Your task to perform on an android device: change your default location settings in chrome Image 0: 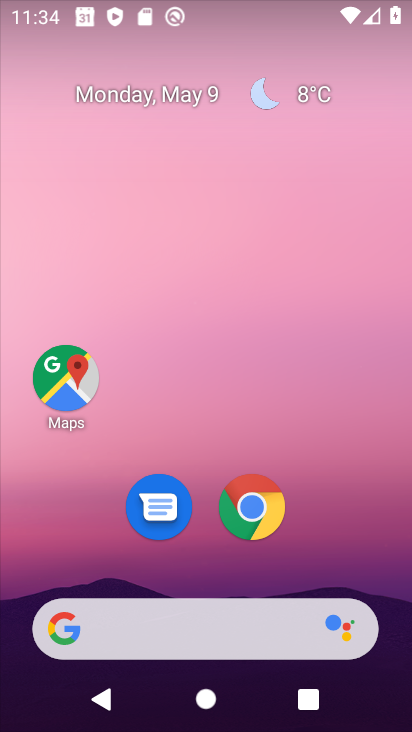
Step 0: click (245, 509)
Your task to perform on an android device: change your default location settings in chrome Image 1: 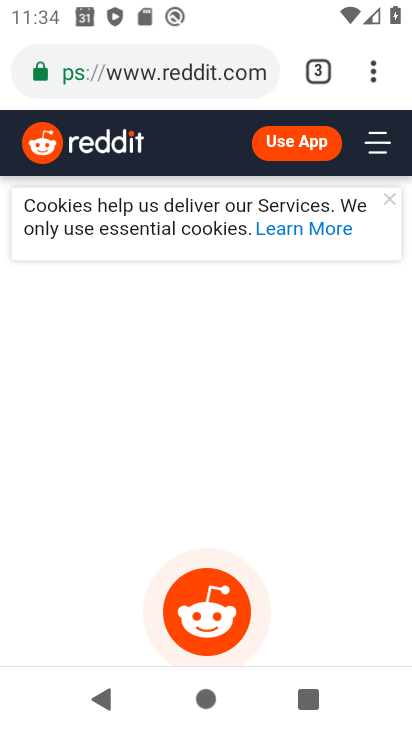
Step 1: click (379, 72)
Your task to perform on an android device: change your default location settings in chrome Image 2: 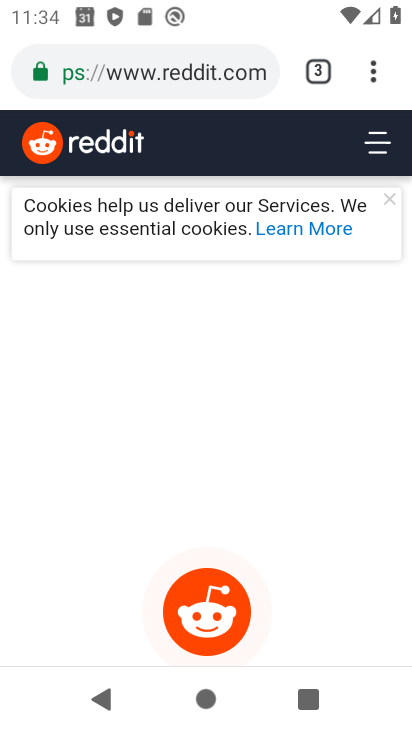
Step 2: click (373, 83)
Your task to perform on an android device: change your default location settings in chrome Image 3: 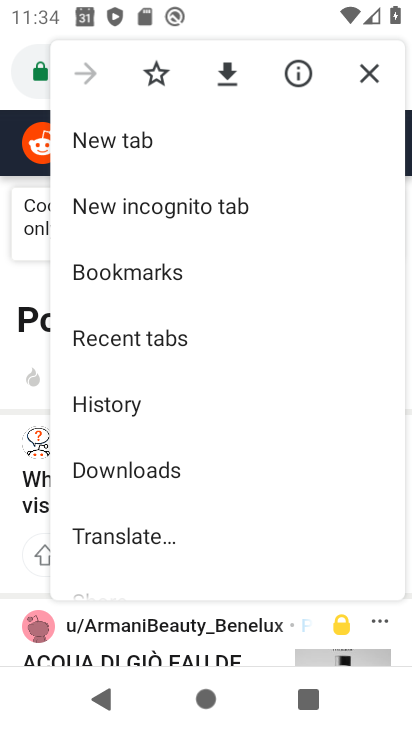
Step 3: drag from (190, 518) to (194, 256)
Your task to perform on an android device: change your default location settings in chrome Image 4: 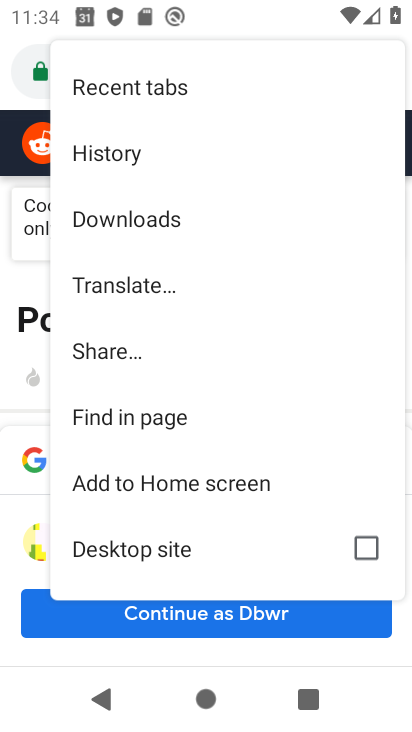
Step 4: drag from (219, 519) to (257, 277)
Your task to perform on an android device: change your default location settings in chrome Image 5: 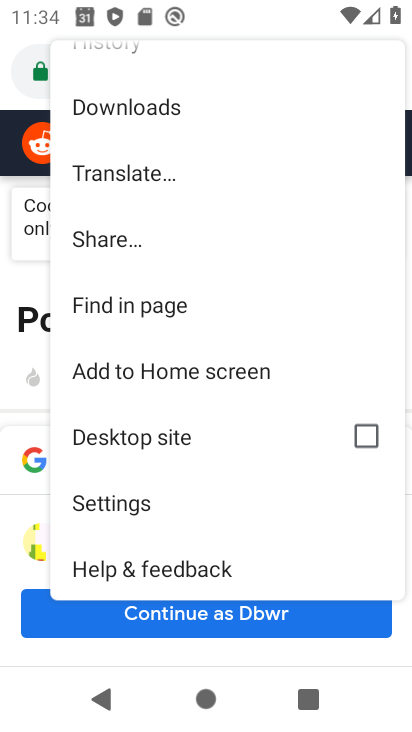
Step 5: click (114, 499)
Your task to perform on an android device: change your default location settings in chrome Image 6: 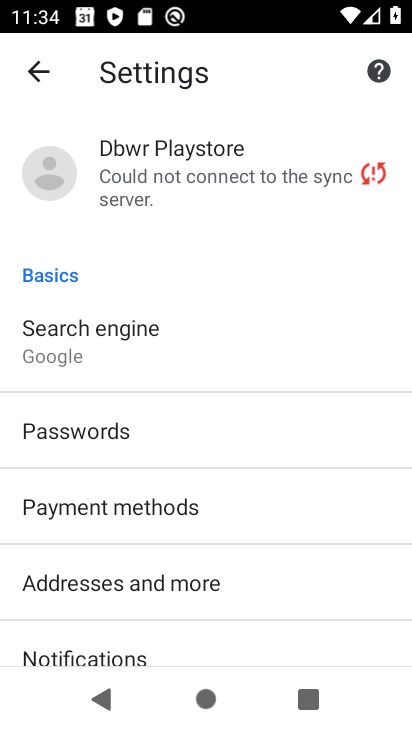
Step 6: click (126, 365)
Your task to perform on an android device: change your default location settings in chrome Image 7: 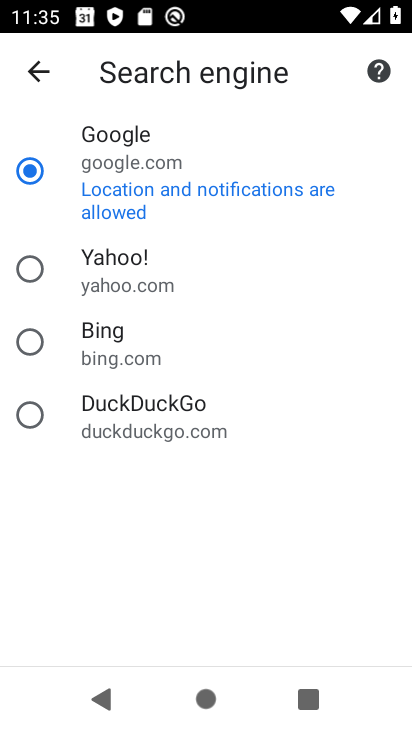
Step 7: click (40, 81)
Your task to perform on an android device: change your default location settings in chrome Image 8: 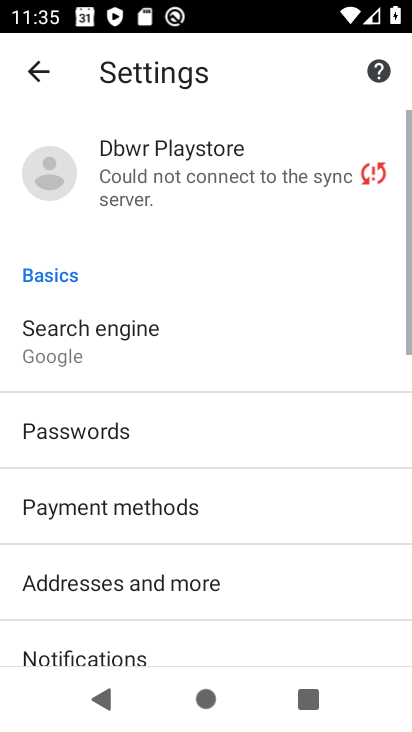
Step 8: drag from (263, 547) to (253, 174)
Your task to perform on an android device: change your default location settings in chrome Image 9: 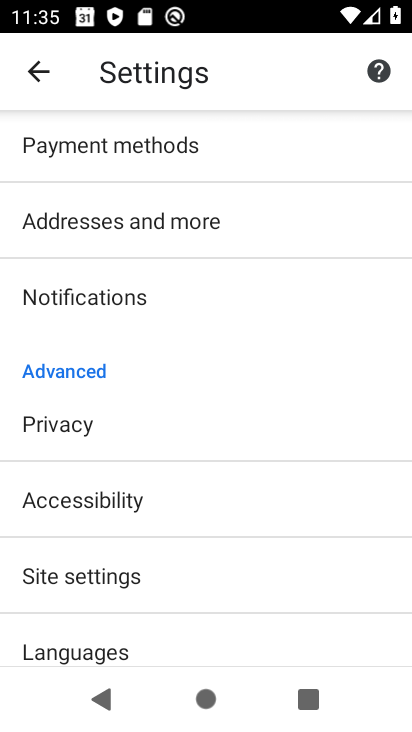
Step 9: click (112, 593)
Your task to perform on an android device: change your default location settings in chrome Image 10: 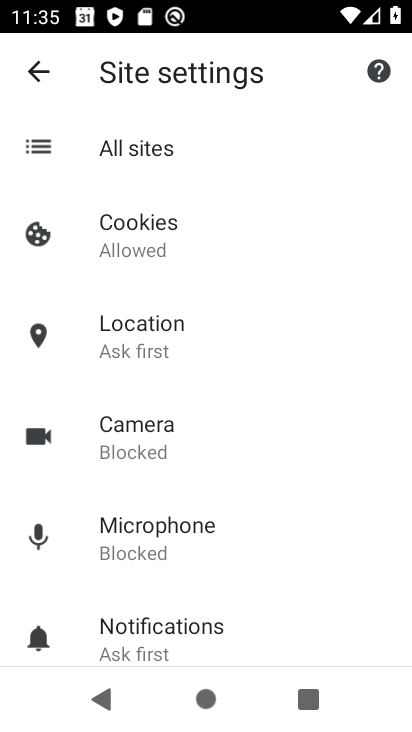
Step 10: click (168, 342)
Your task to perform on an android device: change your default location settings in chrome Image 11: 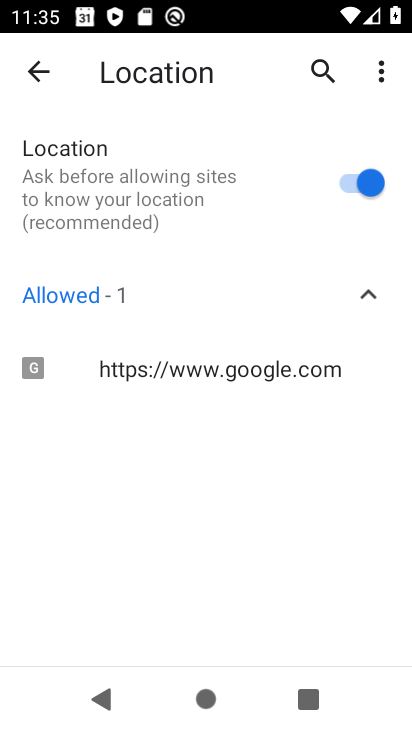
Step 11: click (344, 181)
Your task to perform on an android device: change your default location settings in chrome Image 12: 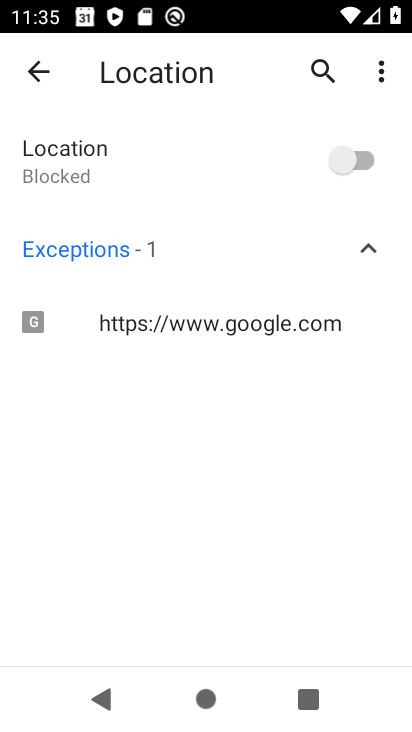
Step 12: task complete